Your task to perform on an android device: change the clock display to digital Image 0: 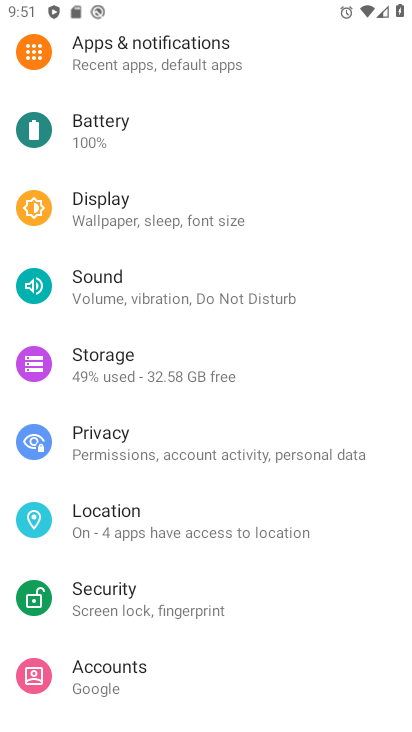
Step 0: press home button
Your task to perform on an android device: change the clock display to digital Image 1: 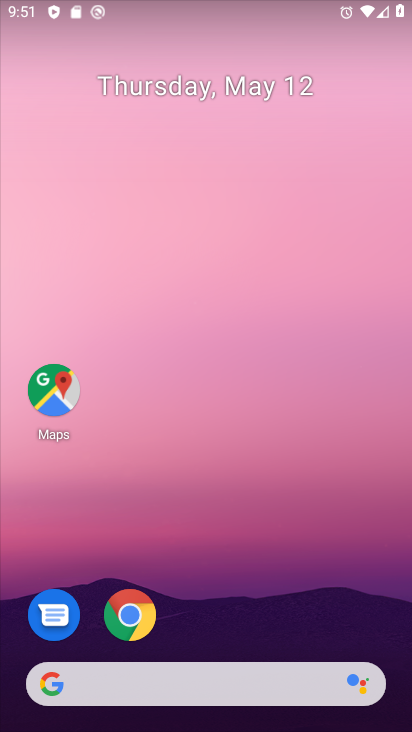
Step 1: drag from (261, 607) to (335, 88)
Your task to perform on an android device: change the clock display to digital Image 2: 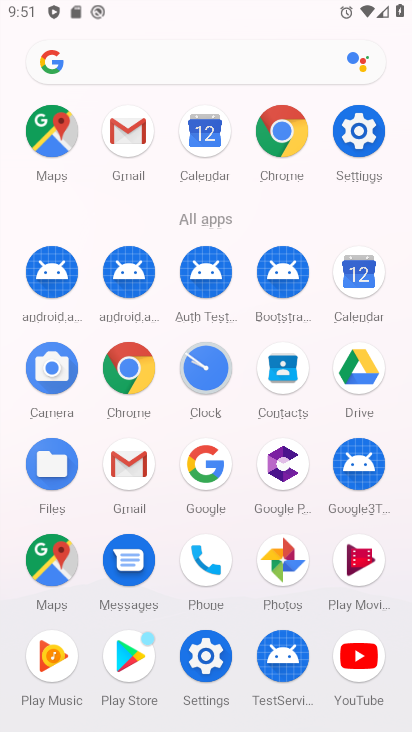
Step 2: click (203, 368)
Your task to perform on an android device: change the clock display to digital Image 3: 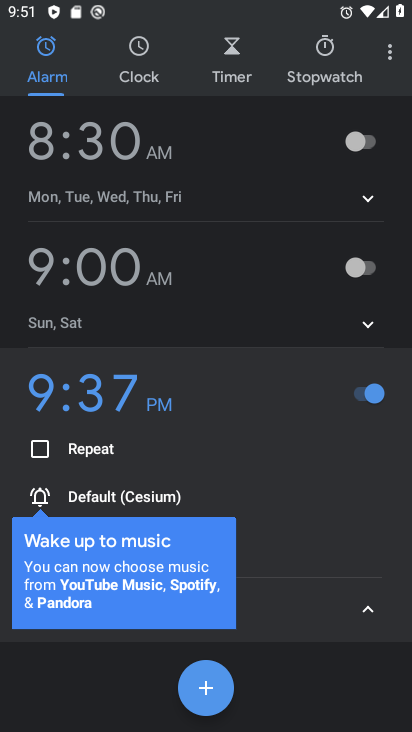
Step 3: click (395, 51)
Your task to perform on an android device: change the clock display to digital Image 4: 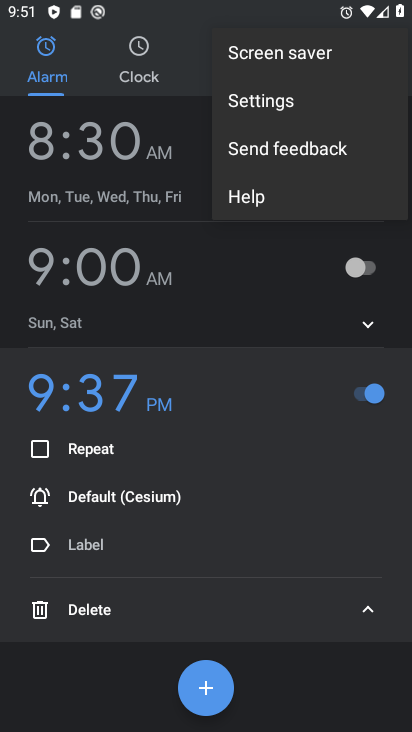
Step 4: click (317, 96)
Your task to perform on an android device: change the clock display to digital Image 5: 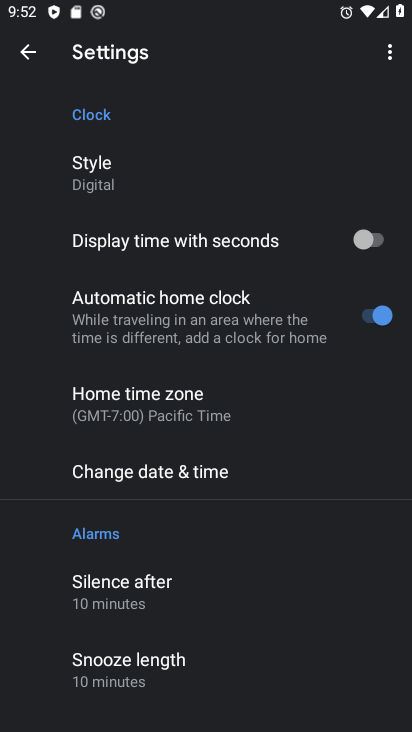
Step 5: task complete